Your task to perform on an android device: How big is the earth? Image 0: 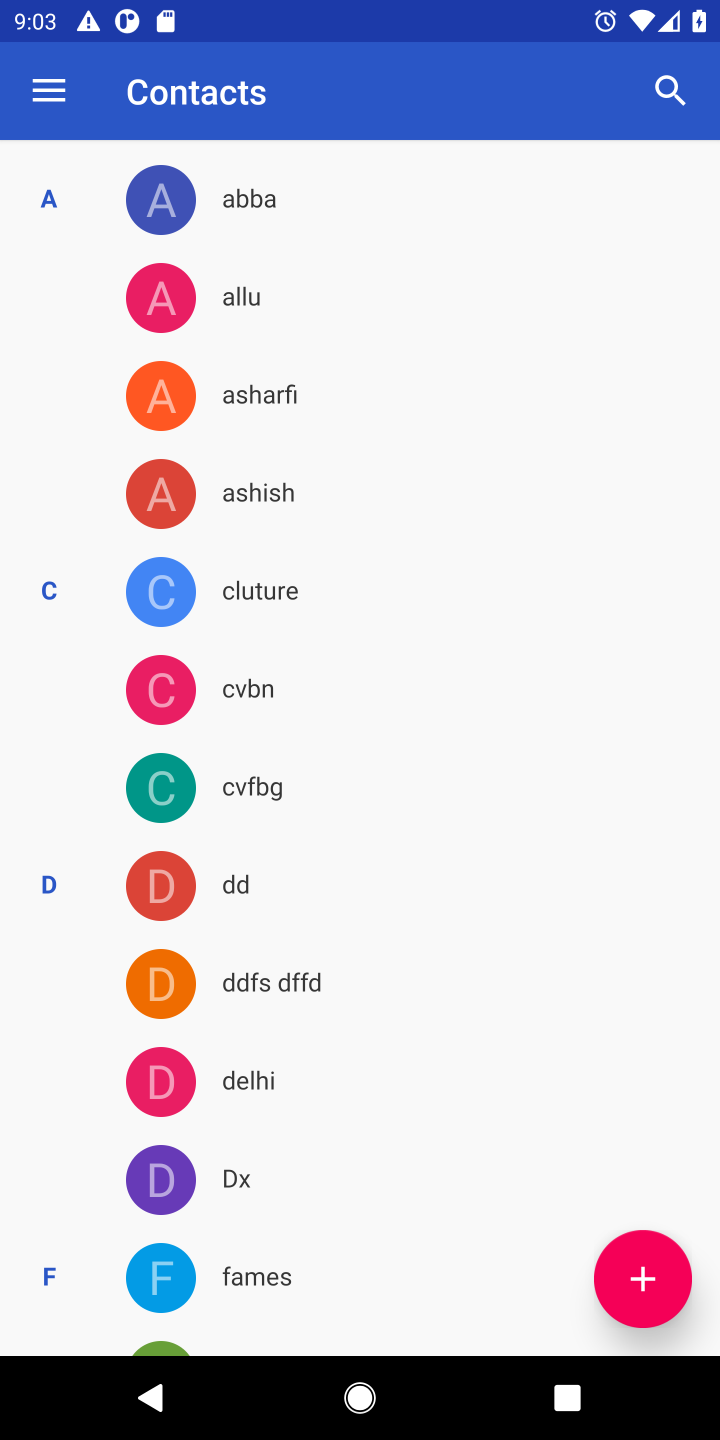
Step 0: press home button
Your task to perform on an android device: How big is the earth? Image 1: 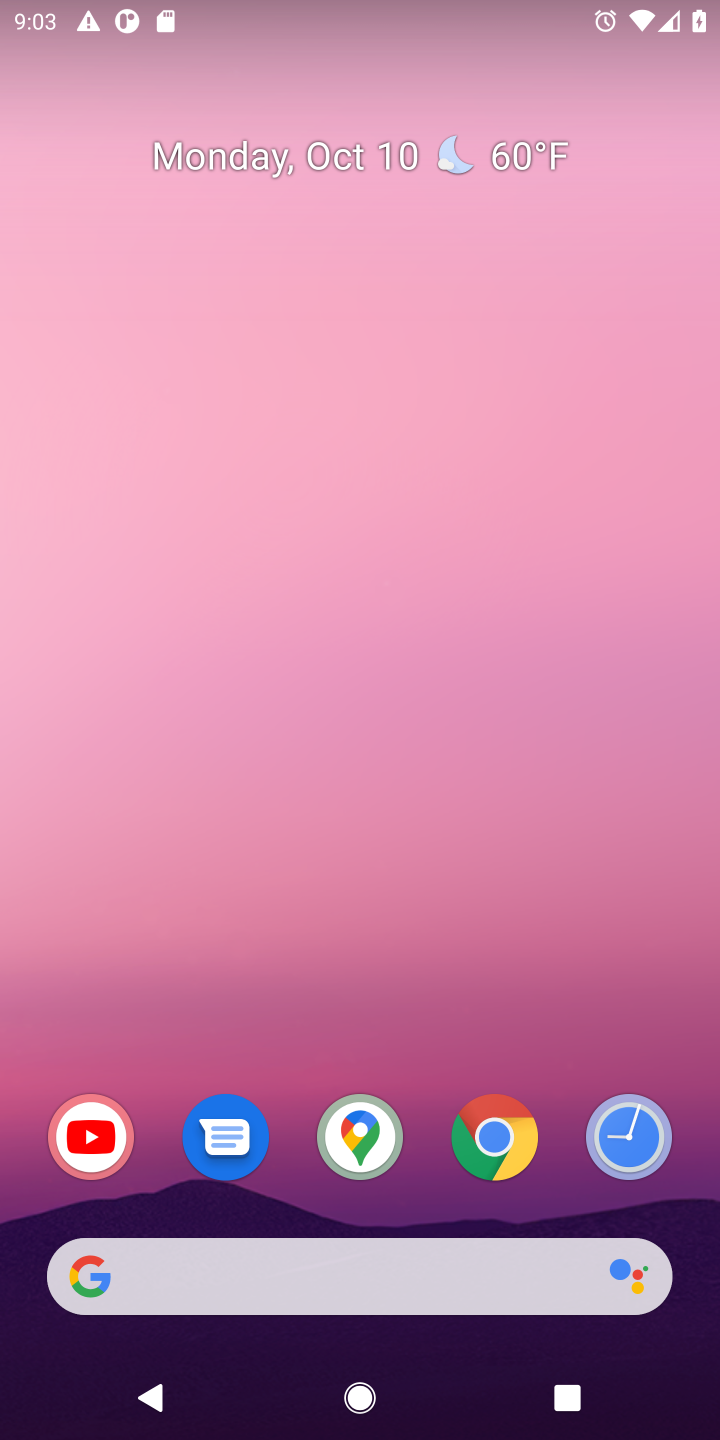
Step 1: click (491, 1133)
Your task to perform on an android device: How big is the earth? Image 2: 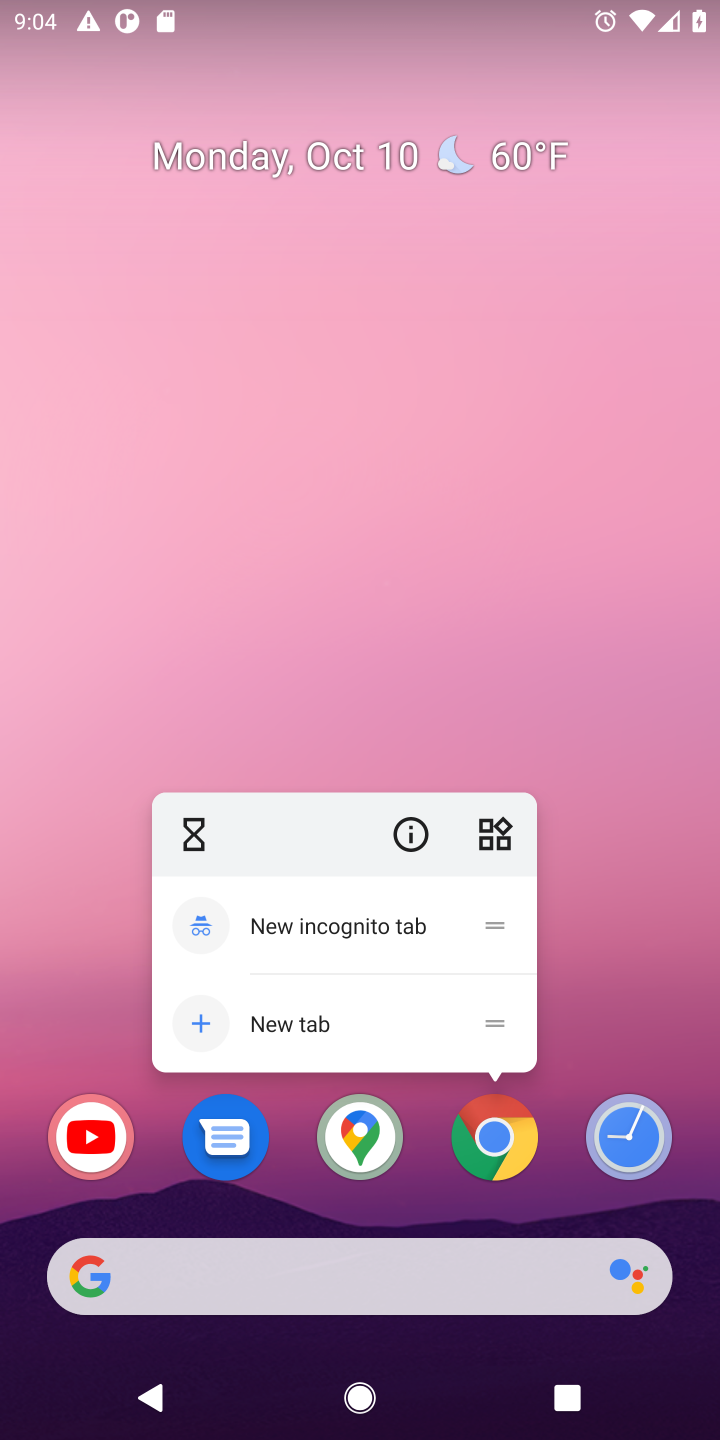
Step 2: click (491, 1133)
Your task to perform on an android device: How big is the earth? Image 3: 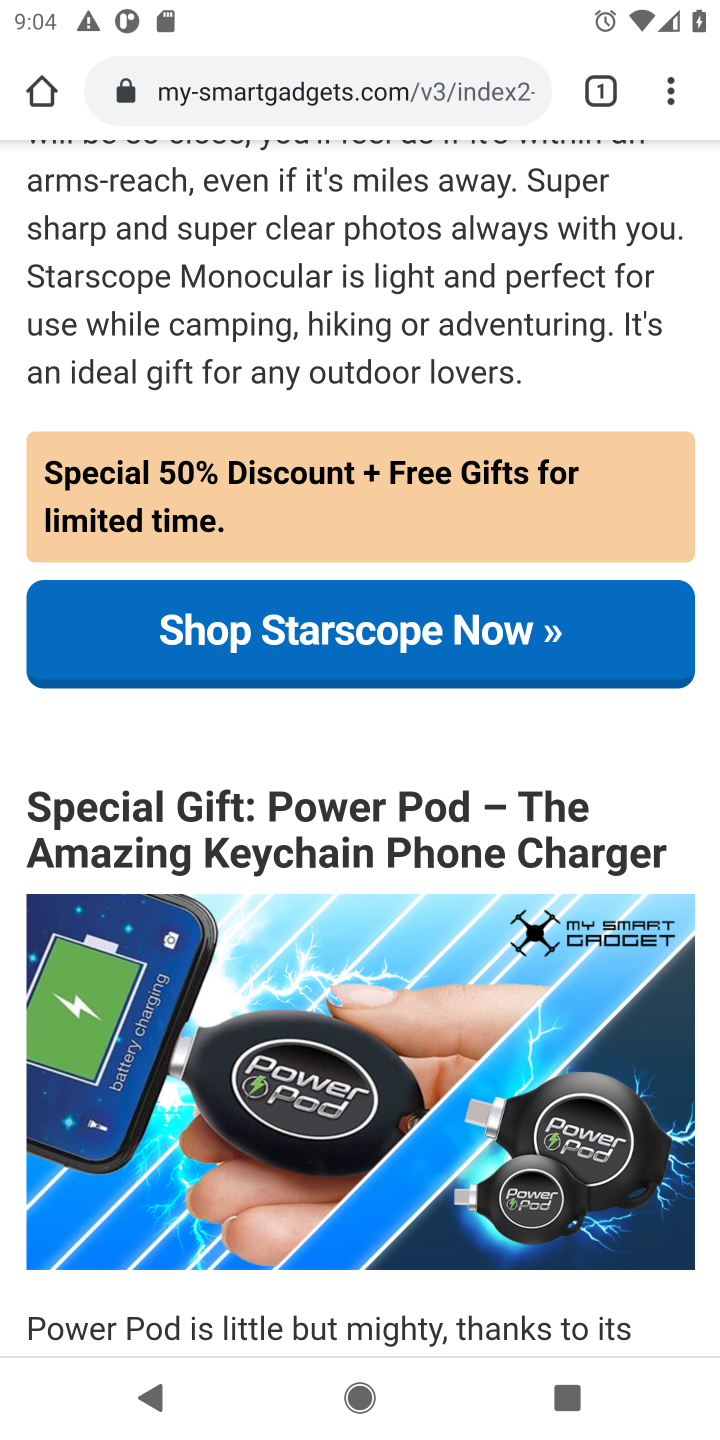
Step 3: click (282, 56)
Your task to perform on an android device: How big is the earth? Image 4: 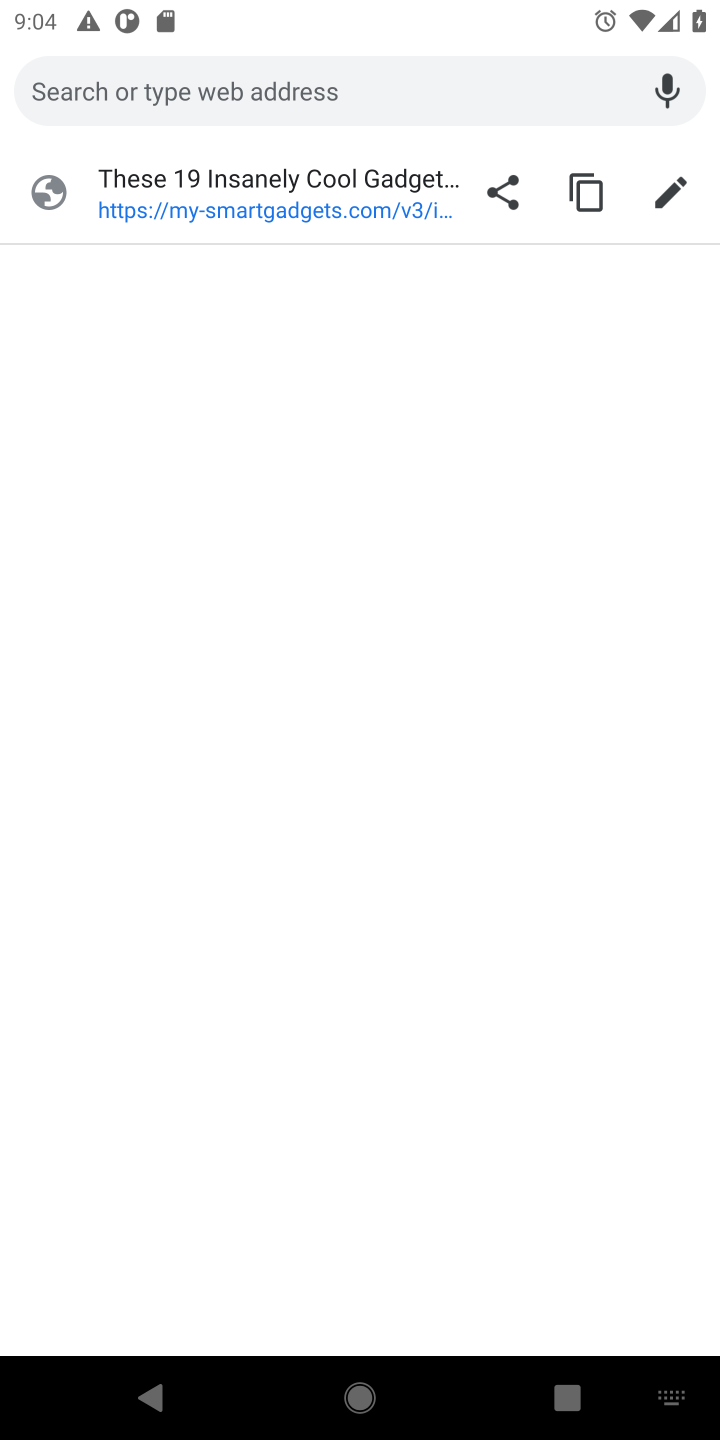
Step 4: type "big is the earth"
Your task to perform on an android device: How big is the earth? Image 5: 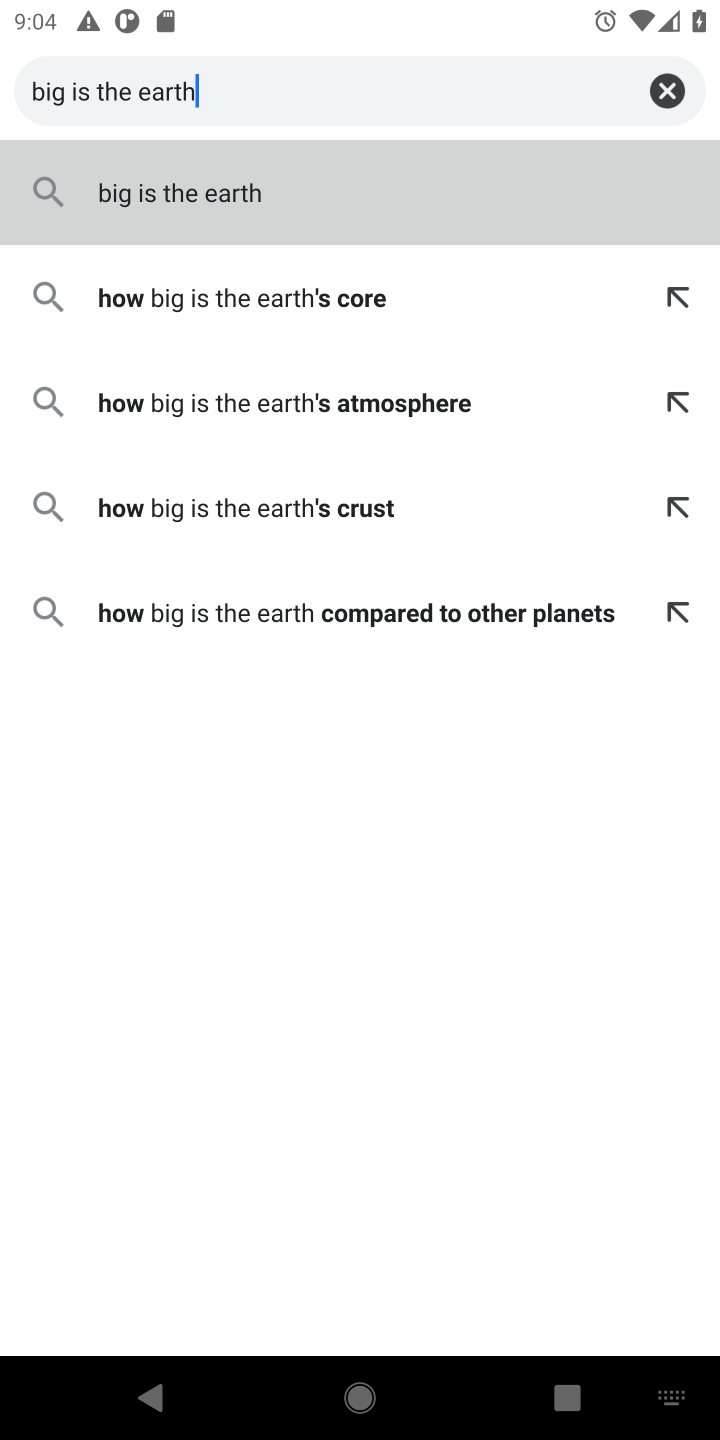
Step 5: click (198, 194)
Your task to perform on an android device: How big is the earth? Image 6: 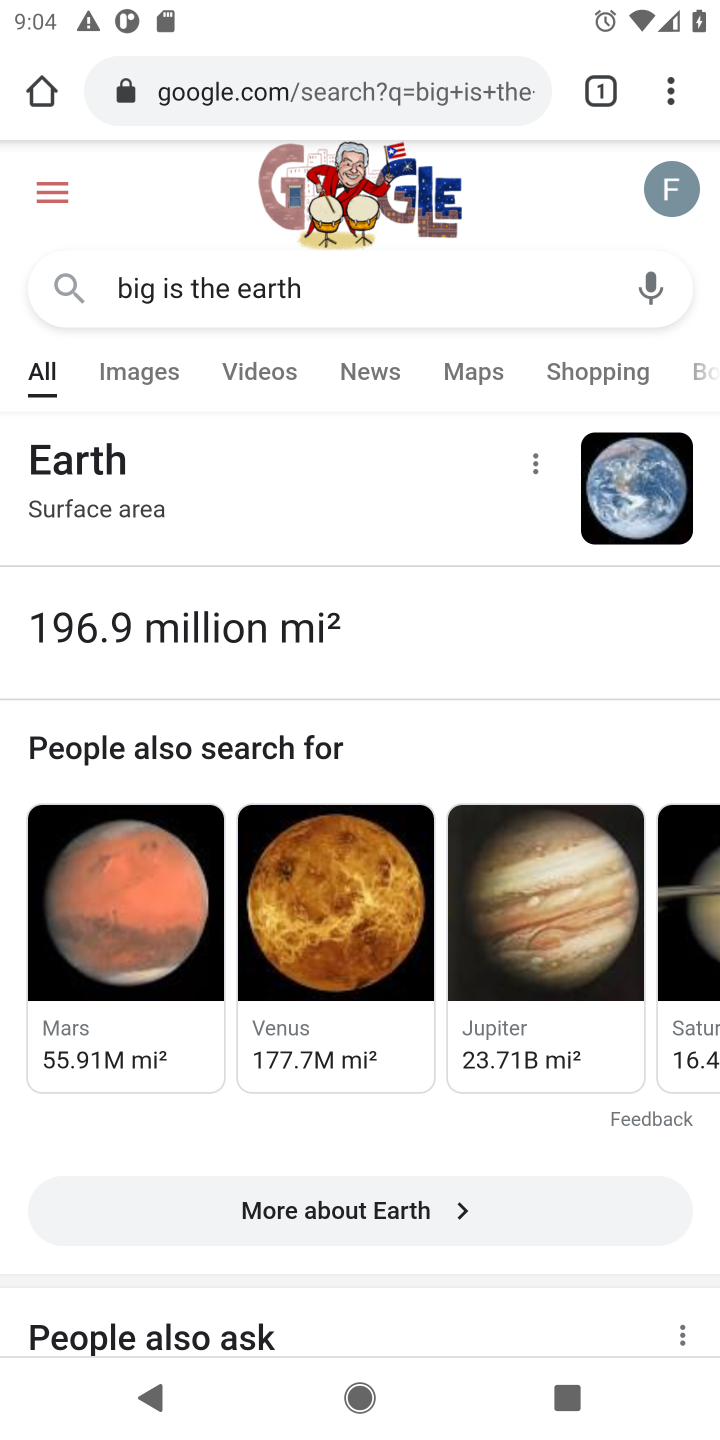
Step 6: task complete